Your task to perform on an android device: change keyboard looks Image 0: 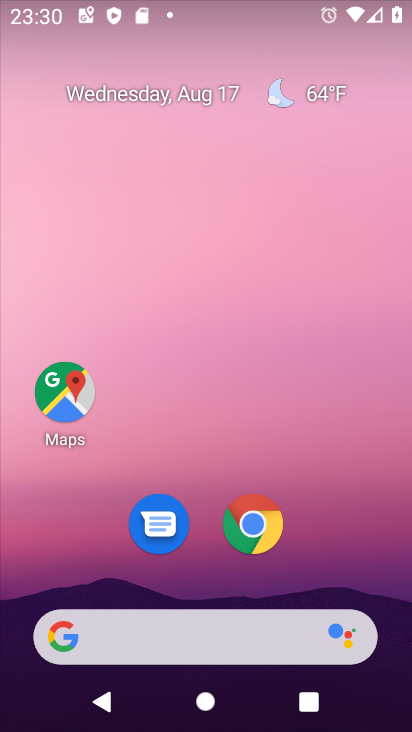
Step 0: drag from (344, 529) to (359, 30)
Your task to perform on an android device: change keyboard looks Image 1: 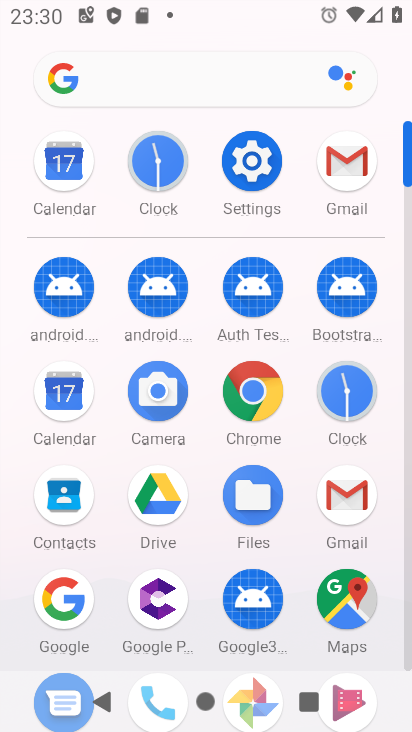
Step 1: click (252, 157)
Your task to perform on an android device: change keyboard looks Image 2: 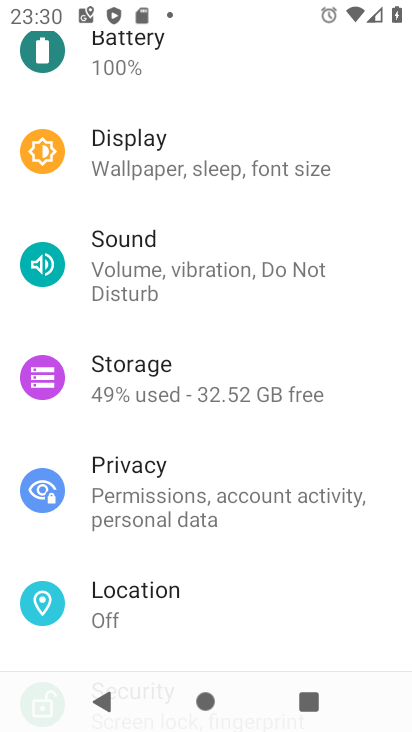
Step 2: drag from (233, 551) to (253, 4)
Your task to perform on an android device: change keyboard looks Image 3: 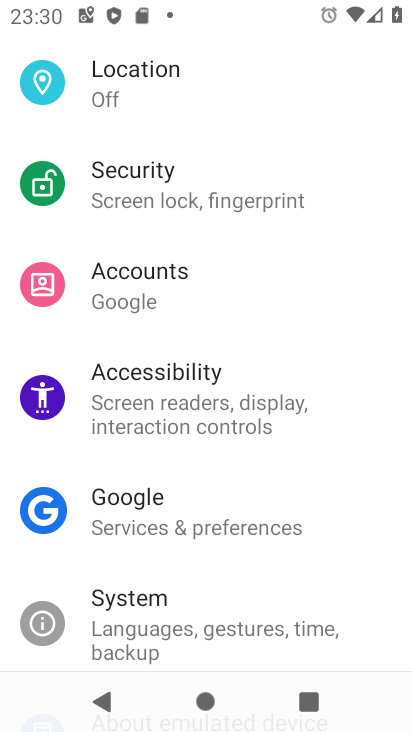
Step 3: click (210, 621)
Your task to perform on an android device: change keyboard looks Image 4: 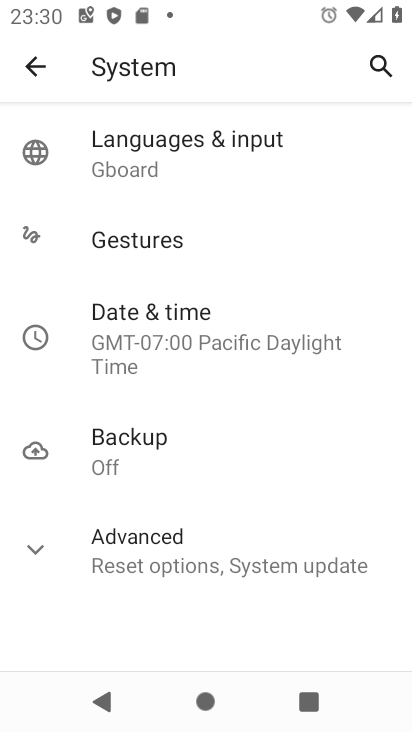
Step 4: click (231, 145)
Your task to perform on an android device: change keyboard looks Image 5: 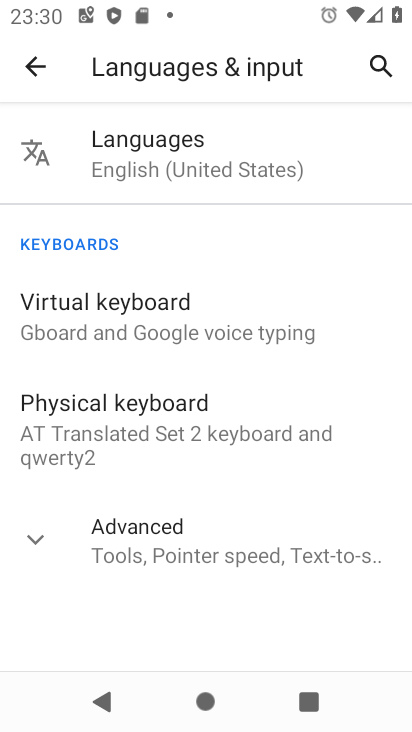
Step 5: click (205, 310)
Your task to perform on an android device: change keyboard looks Image 6: 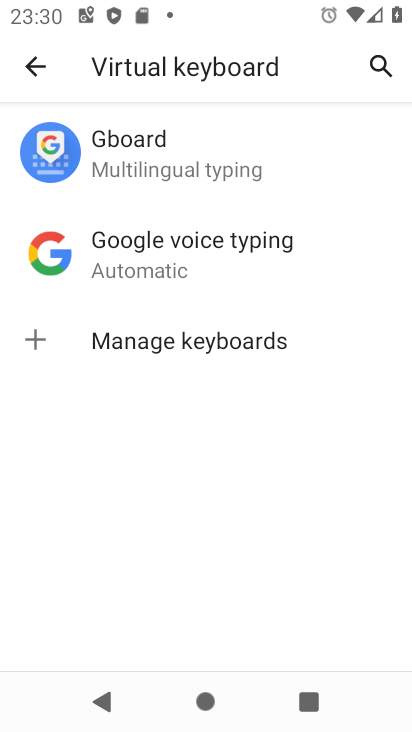
Step 6: click (187, 156)
Your task to perform on an android device: change keyboard looks Image 7: 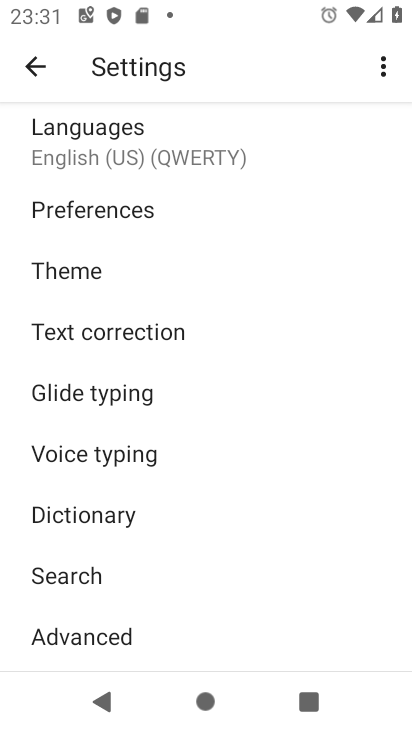
Step 7: click (85, 269)
Your task to perform on an android device: change keyboard looks Image 8: 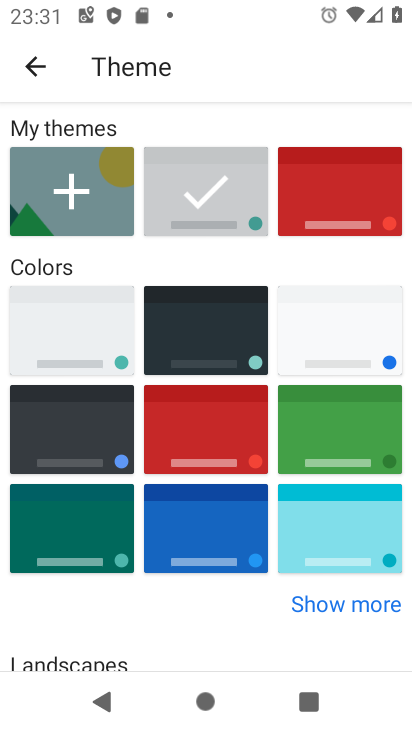
Step 8: click (175, 331)
Your task to perform on an android device: change keyboard looks Image 9: 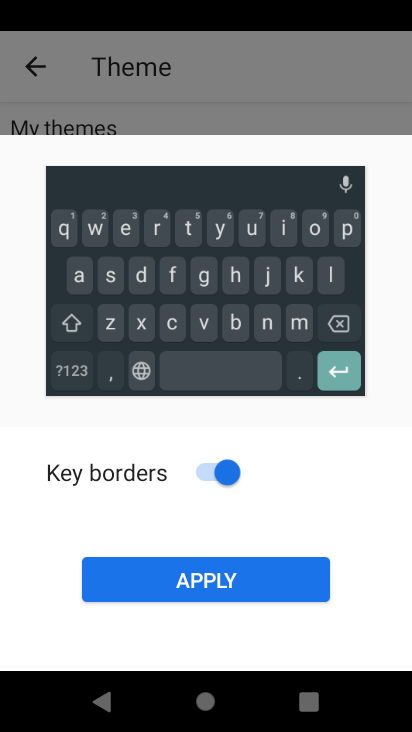
Step 9: click (255, 586)
Your task to perform on an android device: change keyboard looks Image 10: 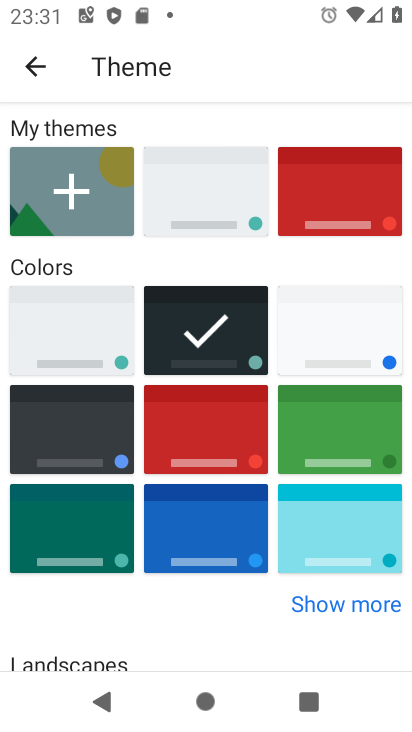
Step 10: task complete